Your task to perform on an android device: Check the news Image 0: 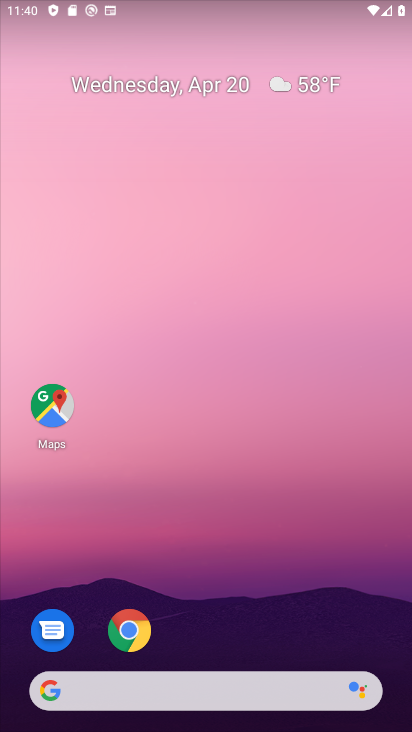
Step 0: drag from (119, 275) to (314, 293)
Your task to perform on an android device: Check the news Image 1: 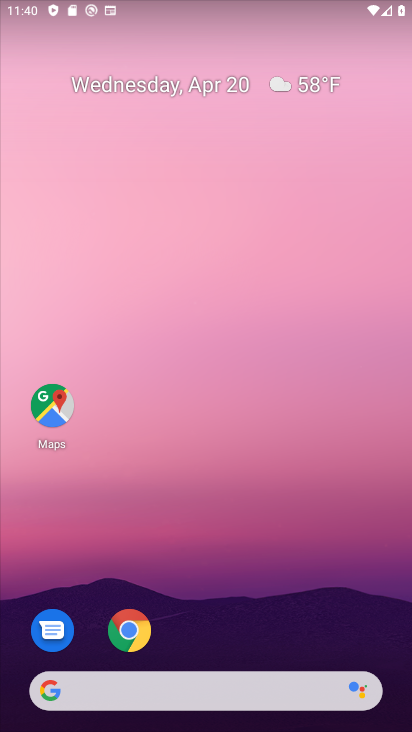
Step 1: task complete